Your task to perform on an android device: turn off priority inbox in the gmail app Image 0: 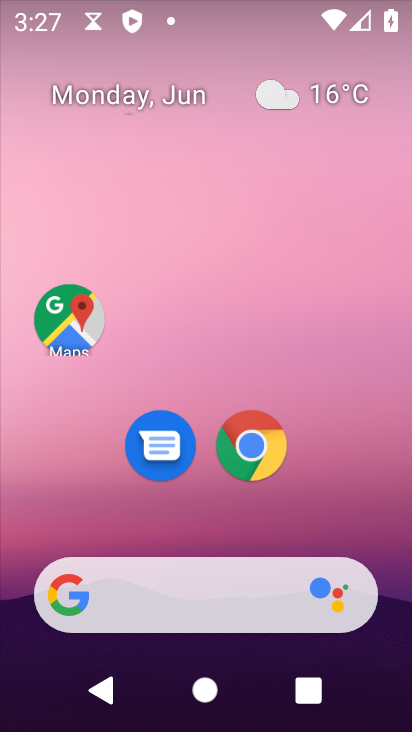
Step 0: drag from (128, 396) to (188, 100)
Your task to perform on an android device: turn off priority inbox in the gmail app Image 1: 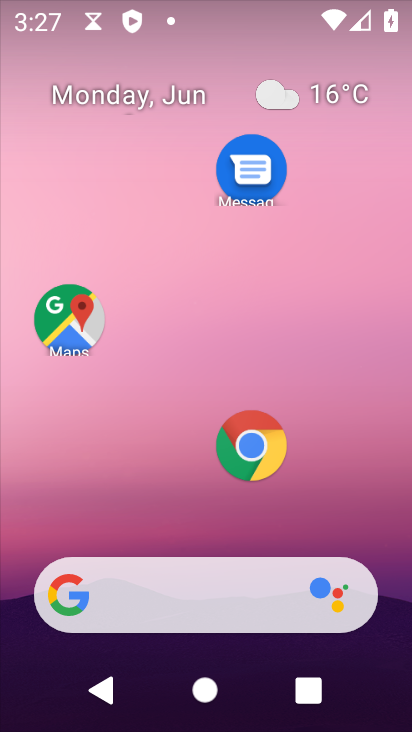
Step 1: drag from (135, 527) to (217, 41)
Your task to perform on an android device: turn off priority inbox in the gmail app Image 2: 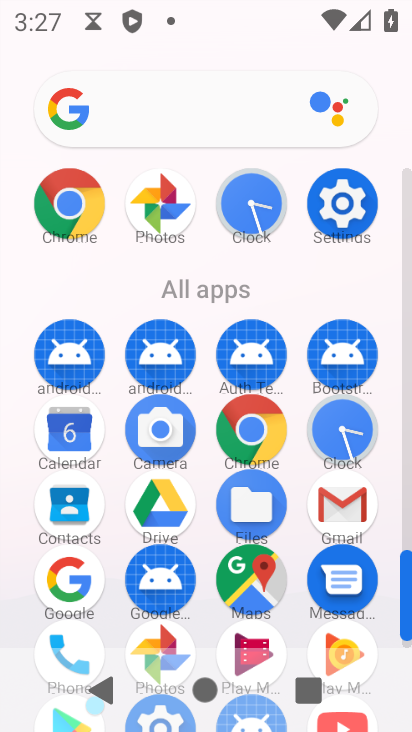
Step 2: click (360, 492)
Your task to perform on an android device: turn off priority inbox in the gmail app Image 3: 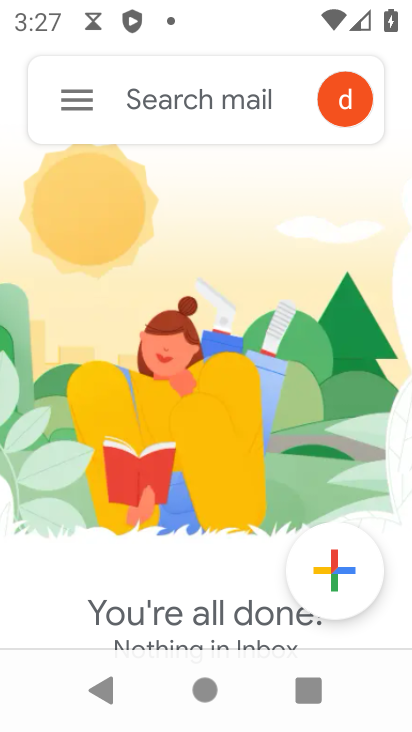
Step 3: click (82, 111)
Your task to perform on an android device: turn off priority inbox in the gmail app Image 4: 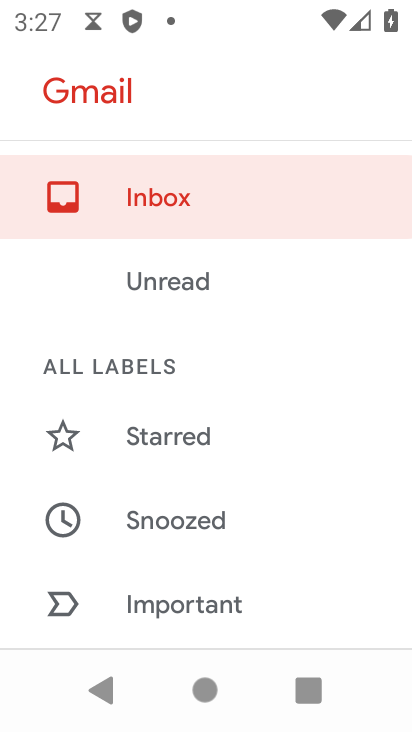
Step 4: drag from (175, 540) to (257, 5)
Your task to perform on an android device: turn off priority inbox in the gmail app Image 5: 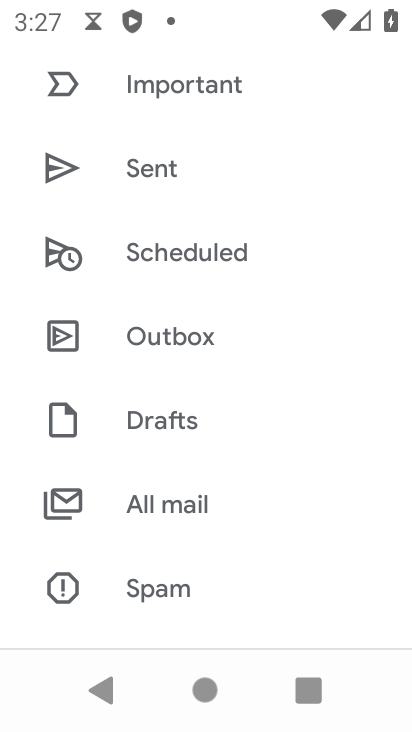
Step 5: drag from (160, 507) to (259, 97)
Your task to perform on an android device: turn off priority inbox in the gmail app Image 6: 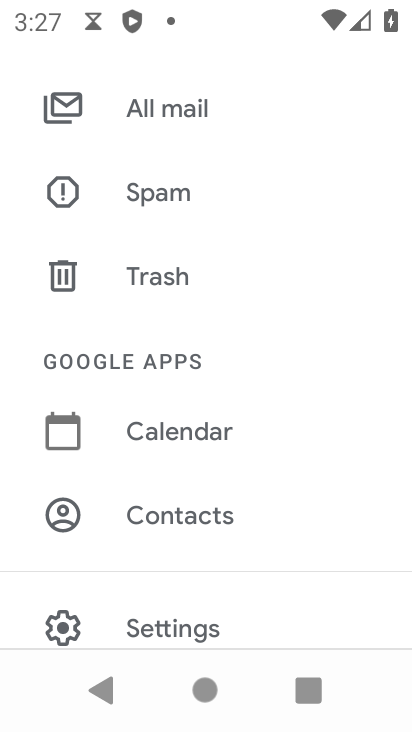
Step 6: drag from (218, 523) to (278, 248)
Your task to perform on an android device: turn off priority inbox in the gmail app Image 7: 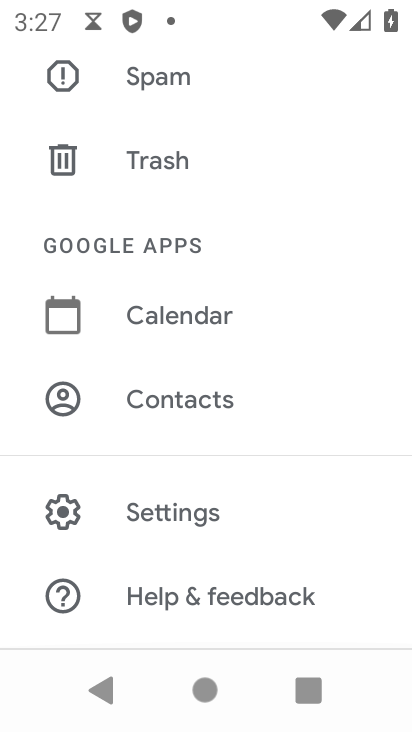
Step 7: click (189, 506)
Your task to perform on an android device: turn off priority inbox in the gmail app Image 8: 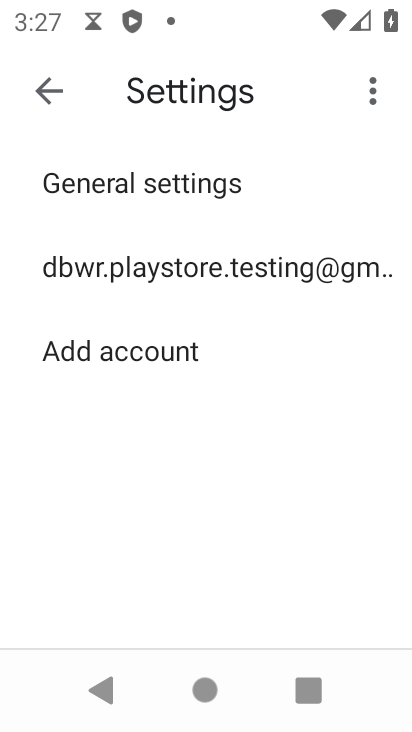
Step 8: click (261, 273)
Your task to perform on an android device: turn off priority inbox in the gmail app Image 9: 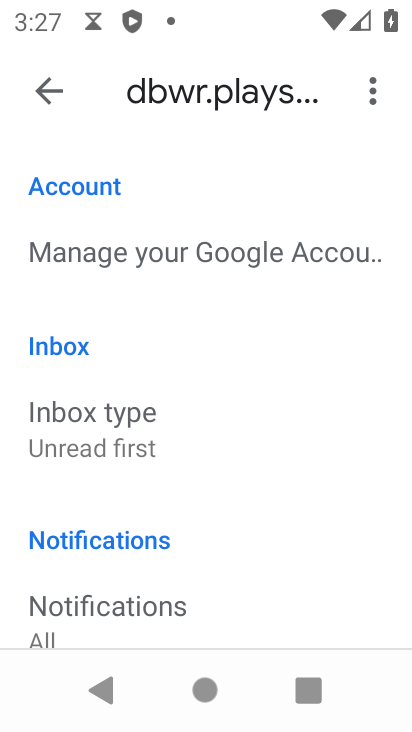
Step 9: drag from (191, 569) to (276, 182)
Your task to perform on an android device: turn off priority inbox in the gmail app Image 10: 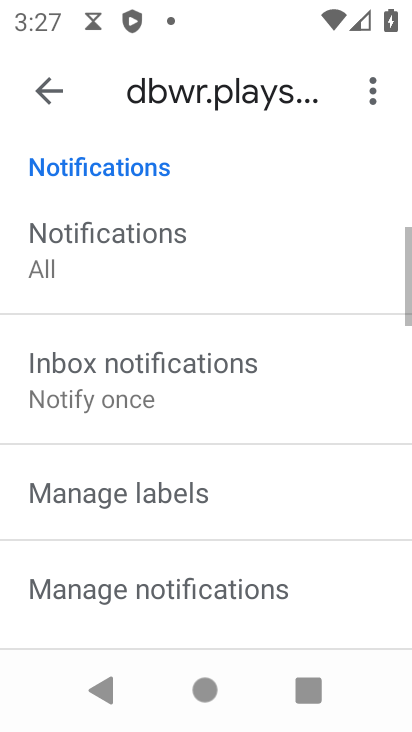
Step 10: drag from (216, 531) to (259, 169)
Your task to perform on an android device: turn off priority inbox in the gmail app Image 11: 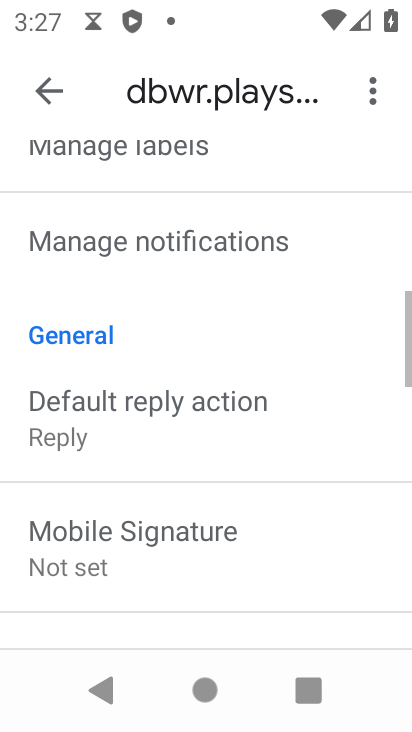
Step 11: drag from (185, 493) to (254, 156)
Your task to perform on an android device: turn off priority inbox in the gmail app Image 12: 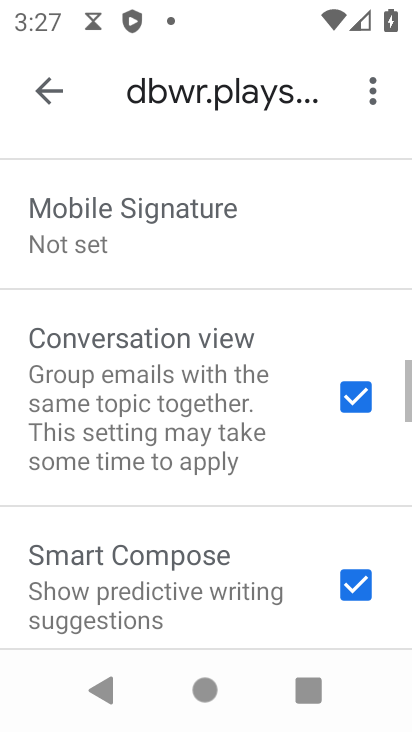
Step 12: drag from (177, 556) to (238, 731)
Your task to perform on an android device: turn off priority inbox in the gmail app Image 13: 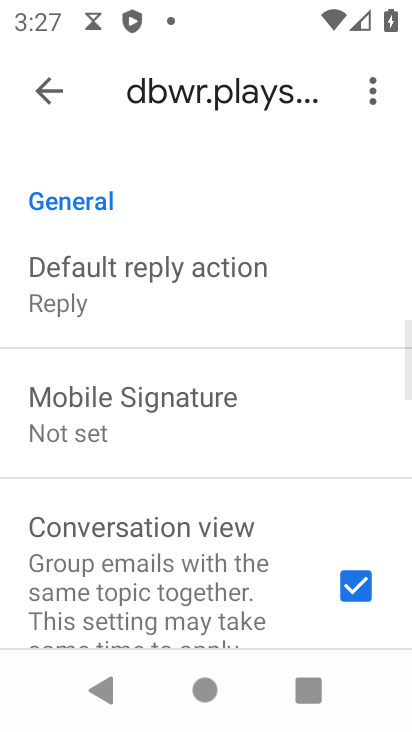
Step 13: drag from (198, 330) to (190, 681)
Your task to perform on an android device: turn off priority inbox in the gmail app Image 14: 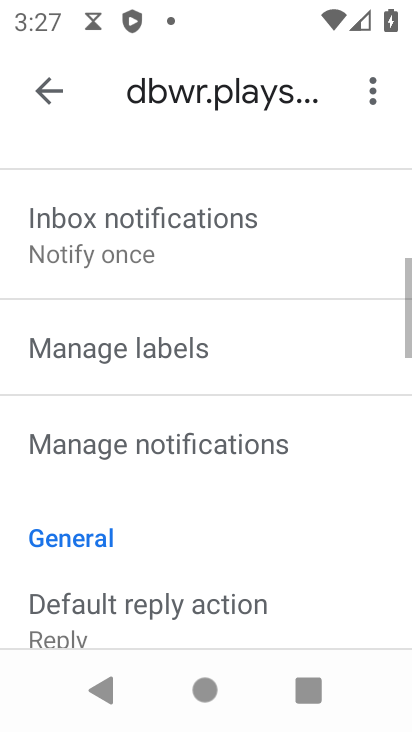
Step 14: drag from (192, 221) to (164, 704)
Your task to perform on an android device: turn off priority inbox in the gmail app Image 15: 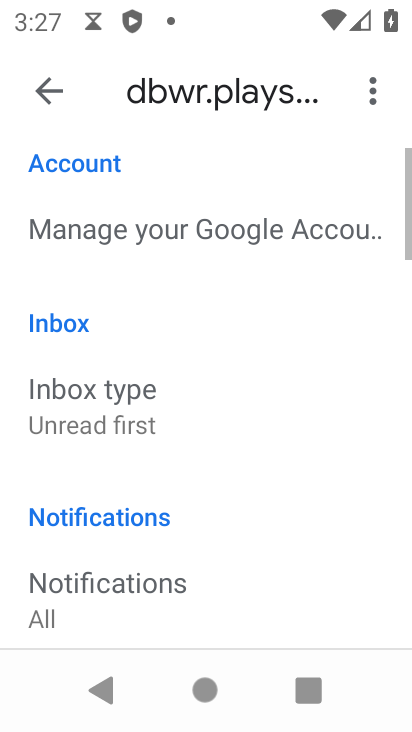
Step 15: drag from (181, 253) to (181, 703)
Your task to perform on an android device: turn off priority inbox in the gmail app Image 16: 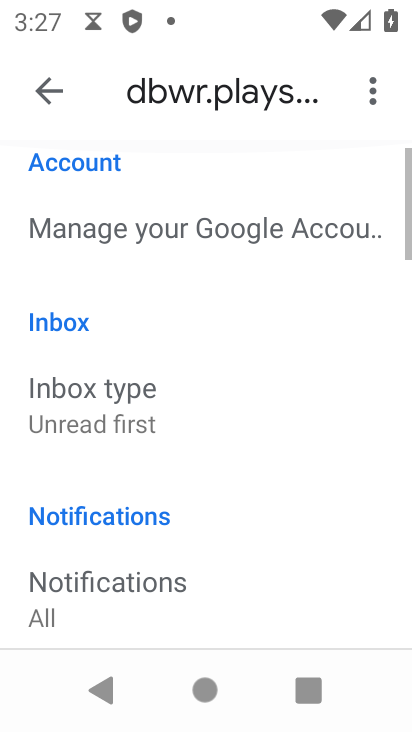
Step 16: click (170, 416)
Your task to perform on an android device: turn off priority inbox in the gmail app Image 17: 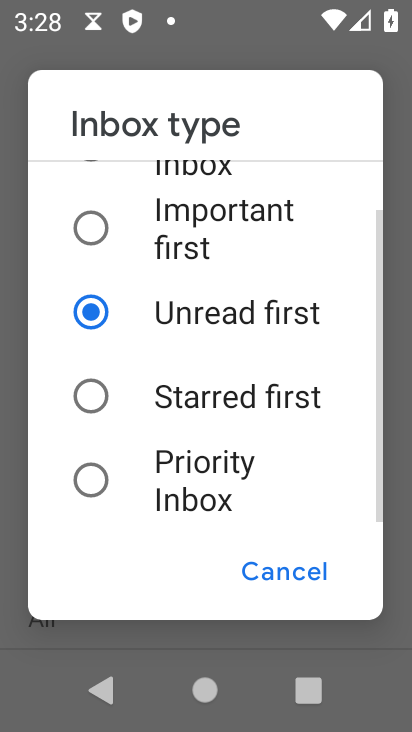
Step 17: task complete